Your task to perform on an android device: toggle notification dots Image 0: 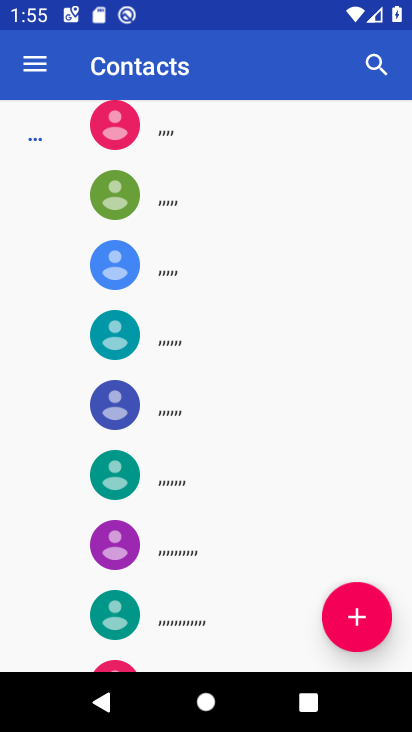
Step 0: press home button
Your task to perform on an android device: toggle notification dots Image 1: 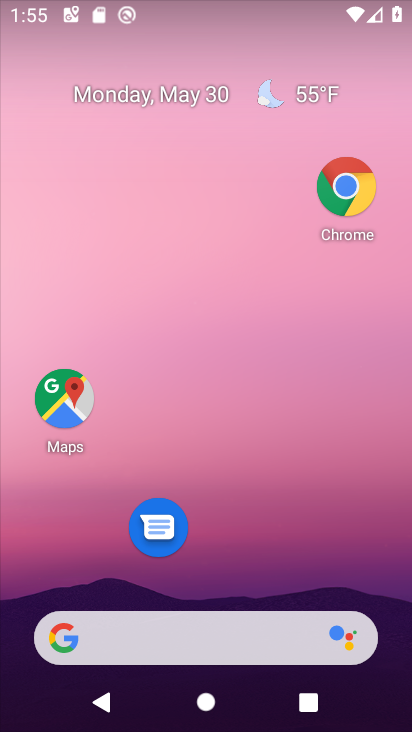
Step 1: drag from (198, 619) to (242, 9)
Your task to perform on an android device: toggle notification dots Image 2: 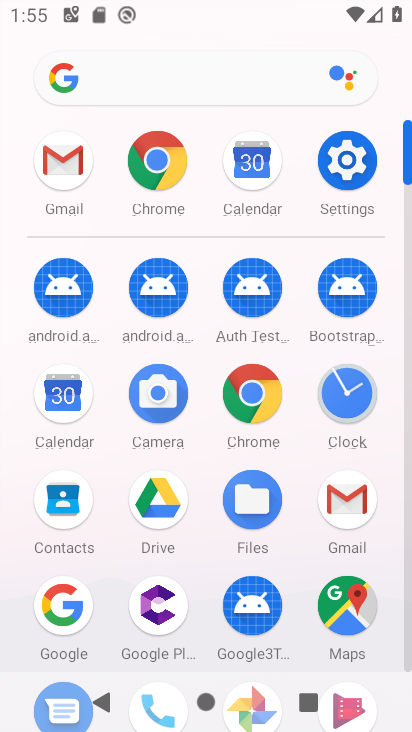
Step 2: click (343, 162)
Your task to perform on an android device: toggle notification dots Image 3: 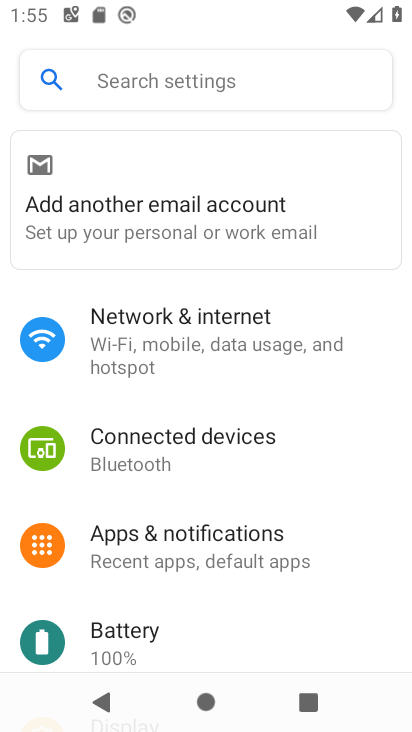
Step 3: click (160, 521)
Your task to perform on an android device: toggle notification dots Image 4: 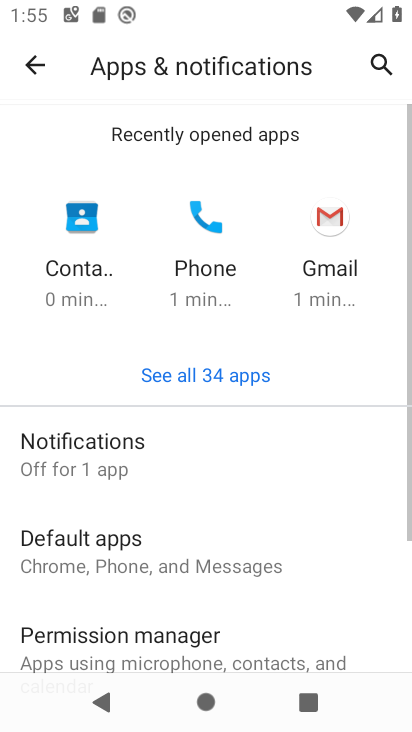
Step 4: click (146, 440)
Your task to perform on an android device: toggle notification dots Image 5: 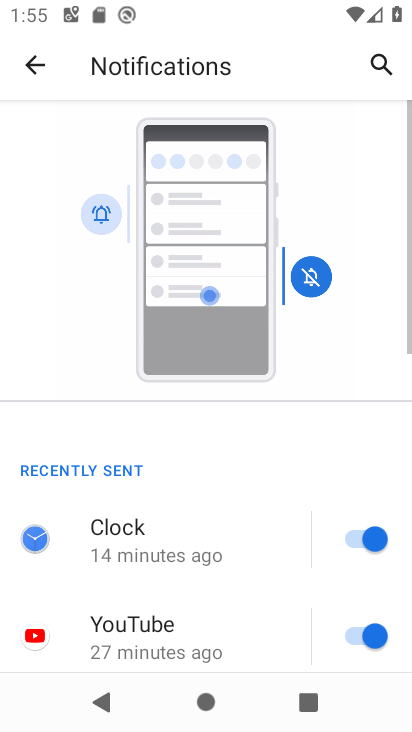
Step 5: drag from (200, 632) to (222, 323)
Your task to perform on an android device: toggle notification dots Image 6: 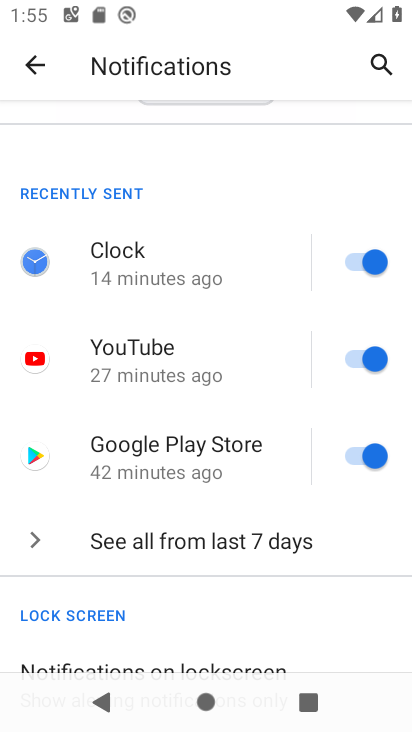
Step 6: drag from (197, 549) to (236, 366)
Your task to perform on an android device: toggle notification dots Image 7: 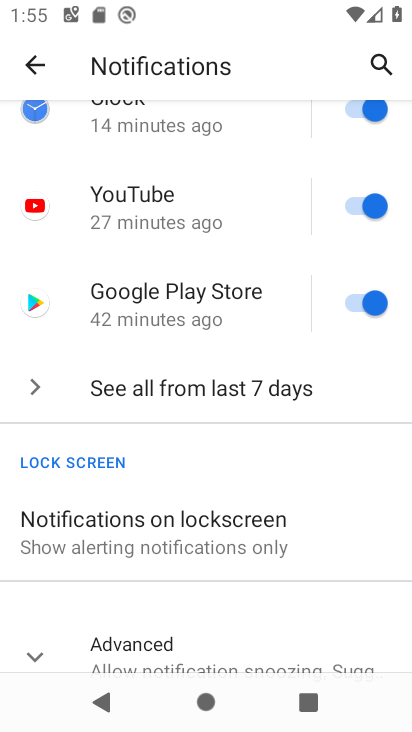
Step 7: drag from (199, 579) to (245, 247)
Your task to perform on an android device: toggle notification dots Image 8: 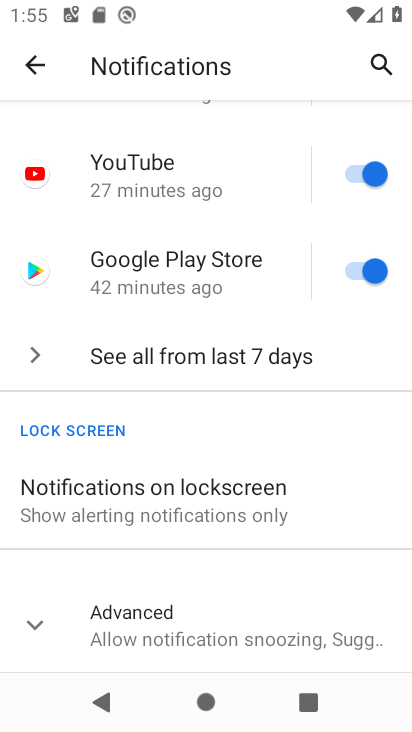
Step 8: click (170, 639)
Your task to perform on an android device: toggle notification dots Image 9: 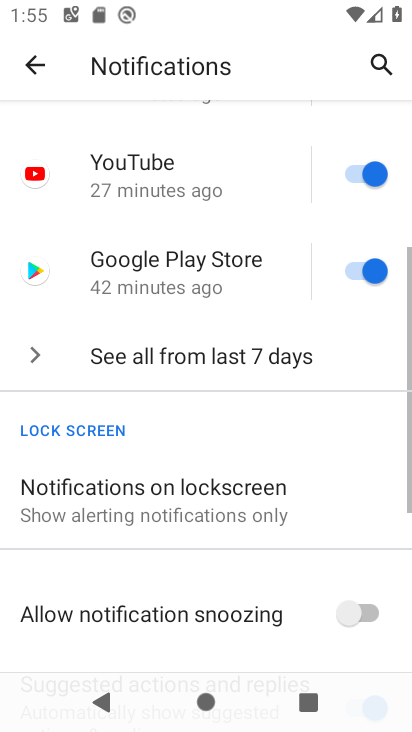
Step 9: drag from (195, 580) to (399, 4)
Your task to perform on an android device: toggle notification dots Image 10: 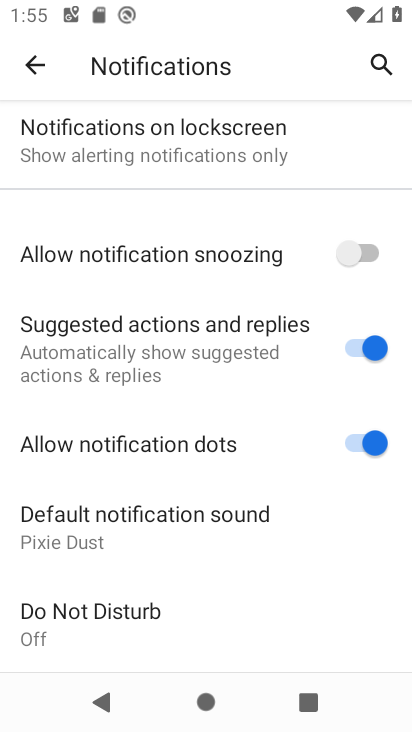
Step 10: click (347, 431)
Your task to perform on an android device: toggle notification dots Image 11: 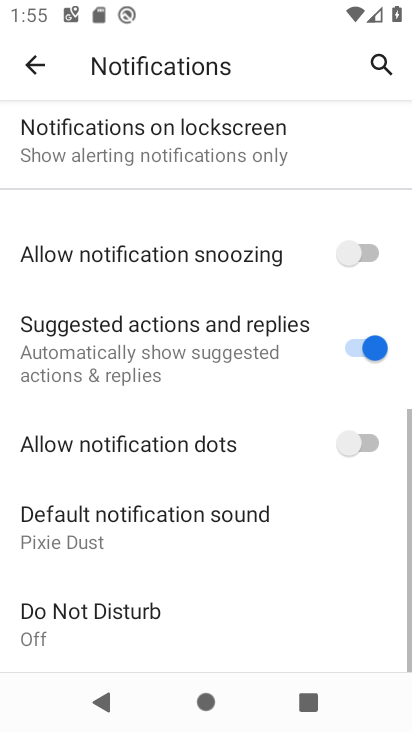
Step 11: task complete